Your task to perform on an android device: Open Google Maps and go to "Timeline" Image 0: 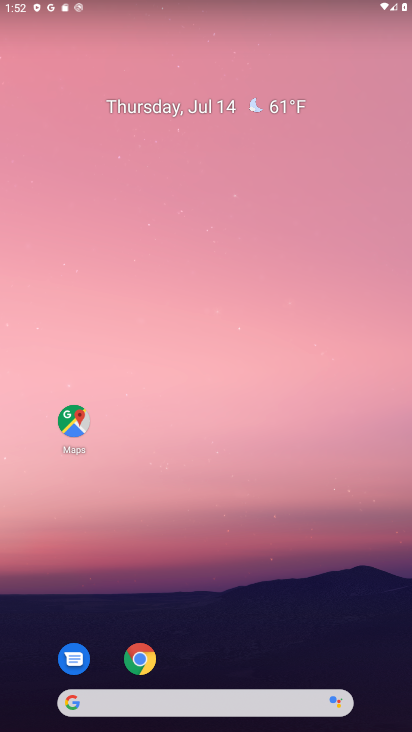
Step 0: drag from (213, 658) to (145, 9)
Your task to perform on an android device: Open Google Maps and go to "Timeline" Image 1: 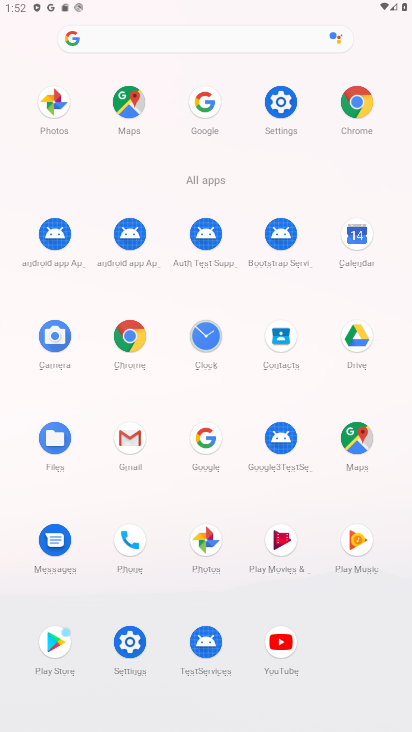
Step 1: click (346, 428)
Your task to perform on an android device: Open Google Maps and go to "Timeline" Image 2: 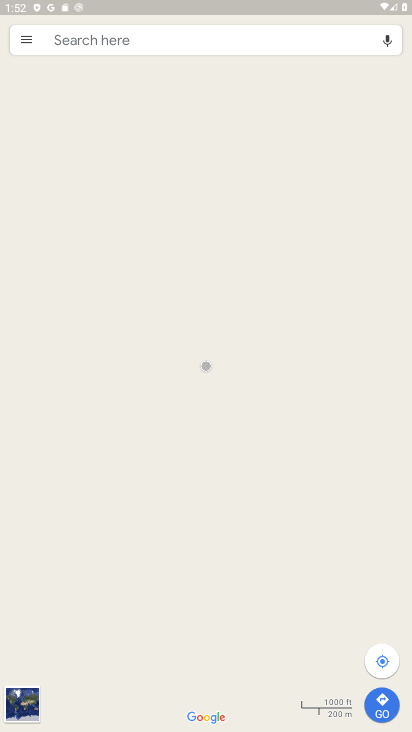
Step 2: click (15, 34)
Your task to perform on an android device: Open Google Maps and go to "Timeline" Image 3: 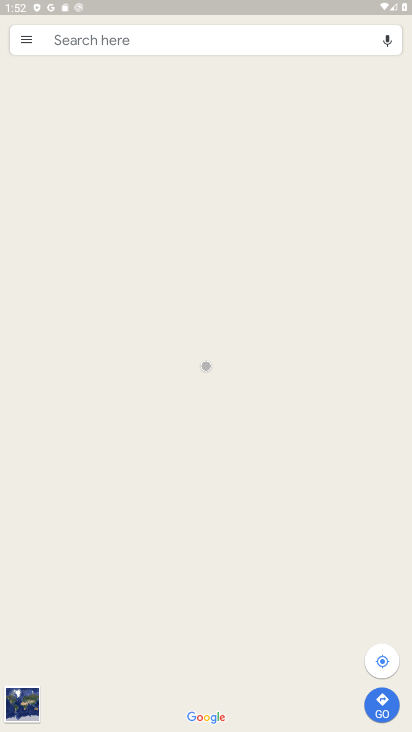
Step 3: click (22, 39)
Your task to perform on an android device: Open Google Maps and go to "Timeline" Image 4: 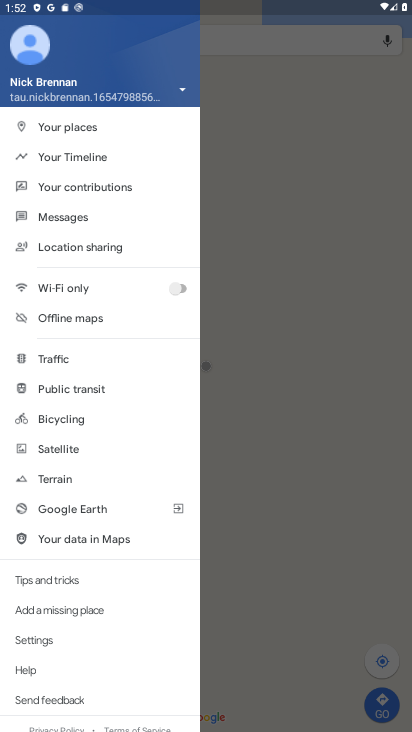
Step 4: click (60, 162)
Your task to perform on an android device: Open Google Maps and go to "Timeline" Image 5: 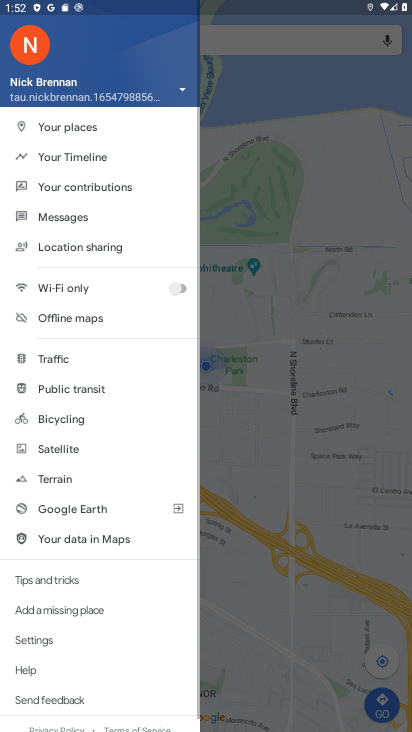
Step 5: click (59, 161)
Your task to perform on an android device: Open Google Maps and go to "Timeline" Image 6: 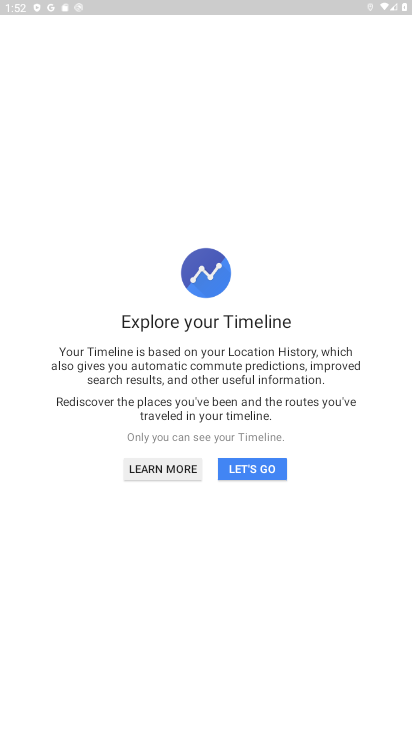
Step 6: click (232, 466)
Your task to perform on an android device: Open Google Maps and go to "Timeline" Image 7: 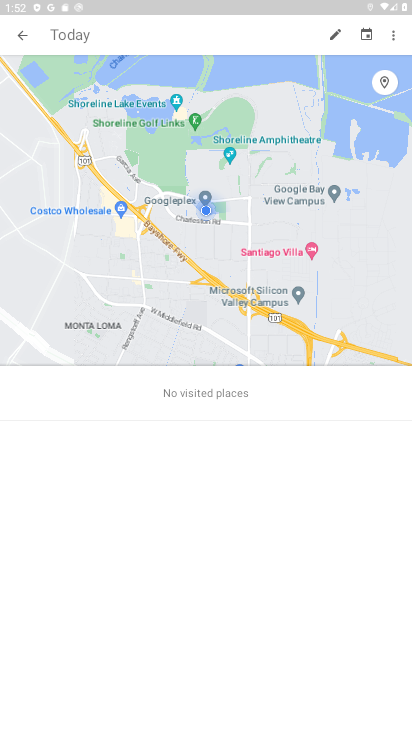
Step 7: task complete